Your task to perform on an android device: Open Wikipedia Image 0: 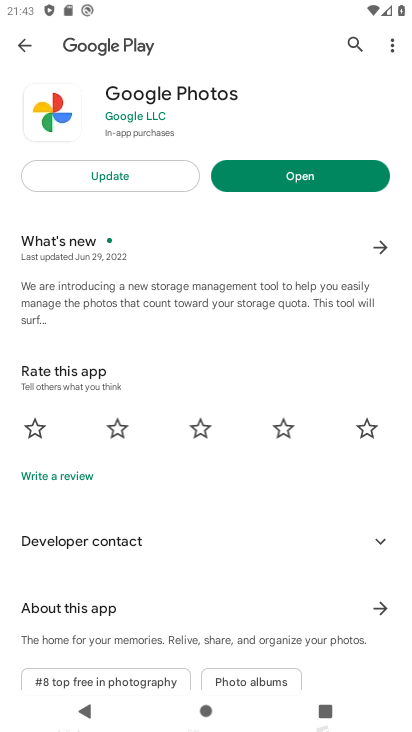
Step 0: press back button
Your task to perform on an android device: Open Wikipedia Image 1: 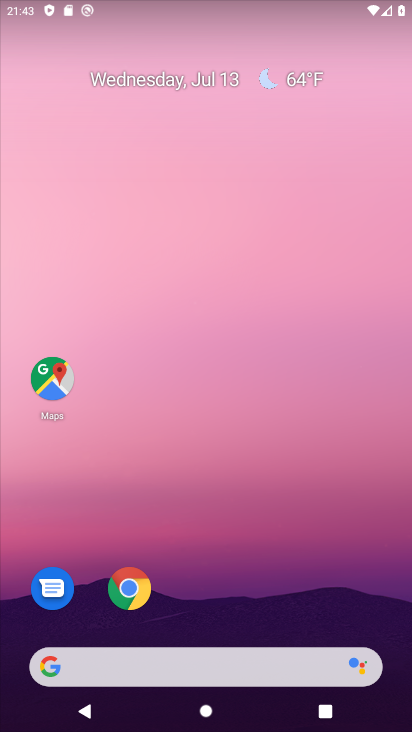
Step 1: click (128, 582)
Your task to perform on an android device: Open Wikipedia Image 2: 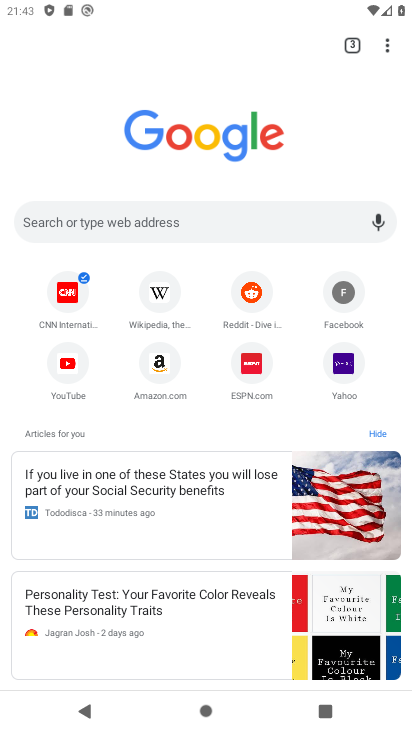
Step 2: click (154, 292)
Your task to perform on an android device: Open Wikipedia Image 3: 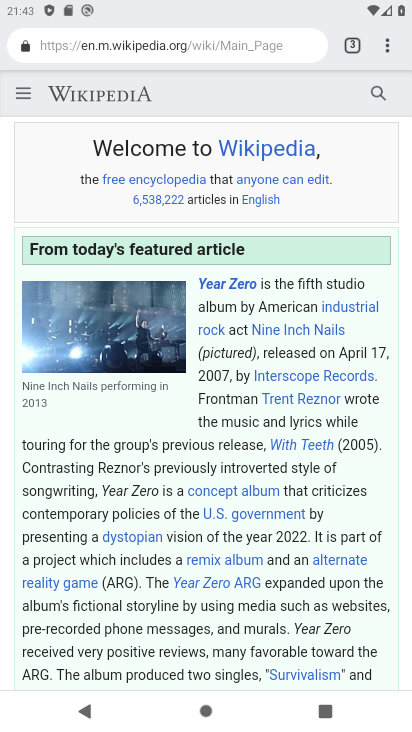
Step 3: task complete